Your task to perform on an android device: turn off sleep mode Image 0: 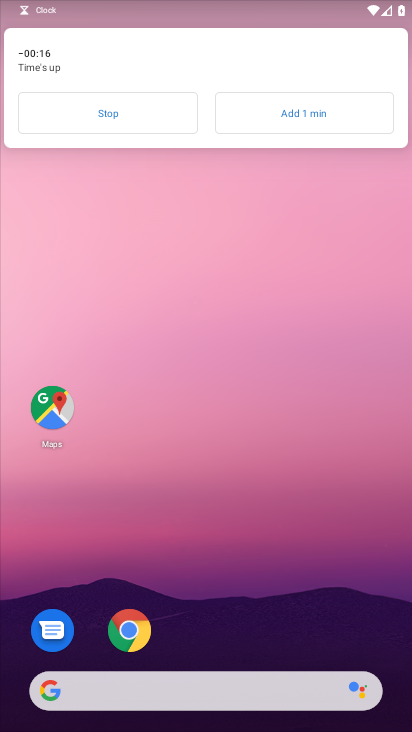
Step 0: click (153, 110)
Your task to perform on an android device: turn off sleep mode Image 1: 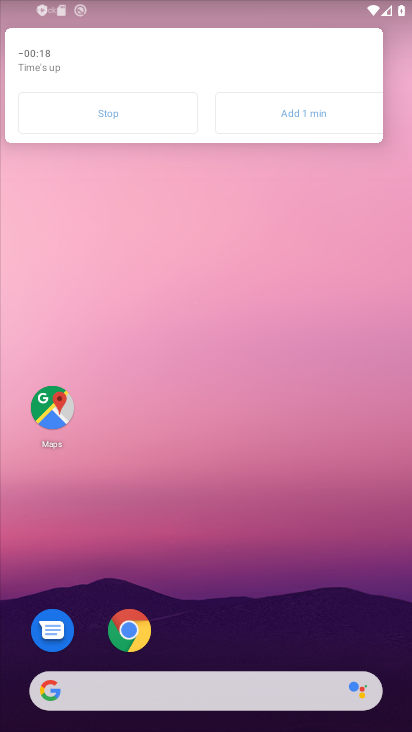
Step 1: drag from (224, 640) to (233, 247)
Your task to perform on an android device: turn off sleep mode Image 2: 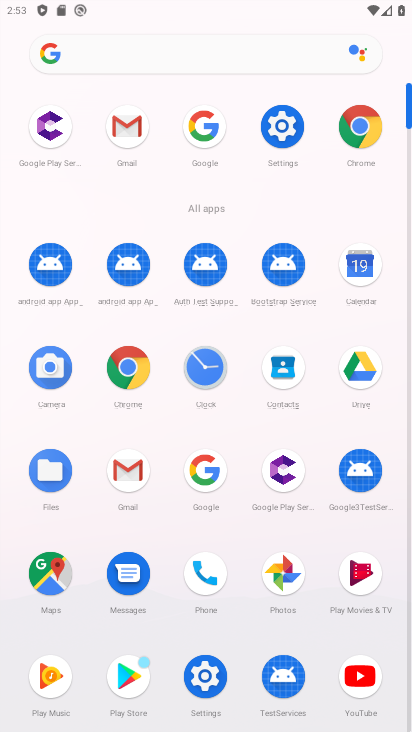
Step 2: click (276, 144)
Your task to perform on an android device: turn off sleep mode Image 3: 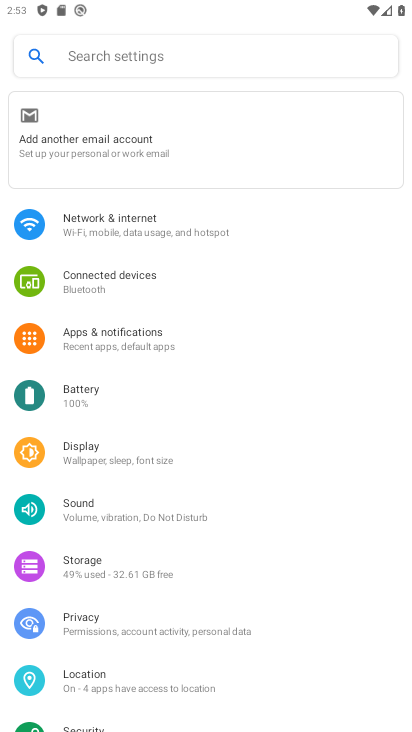
Step 3: click (111, 442)
Your task to perform on an android device: turn off sleep mode Image 4: 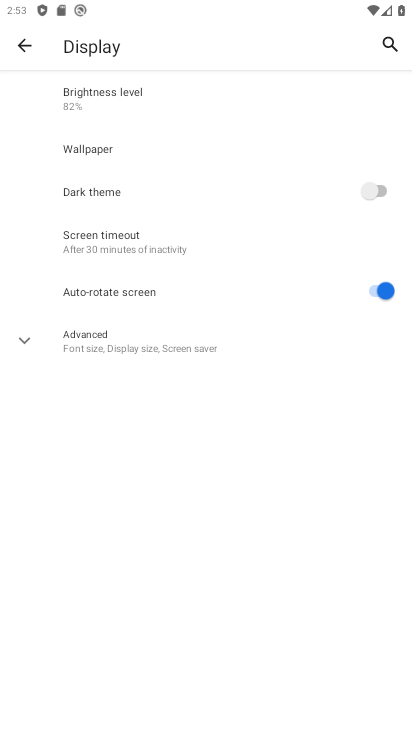
Step 4: click (123, 230)
Your task to perform on an android device: turn off sleep mode Image 5: 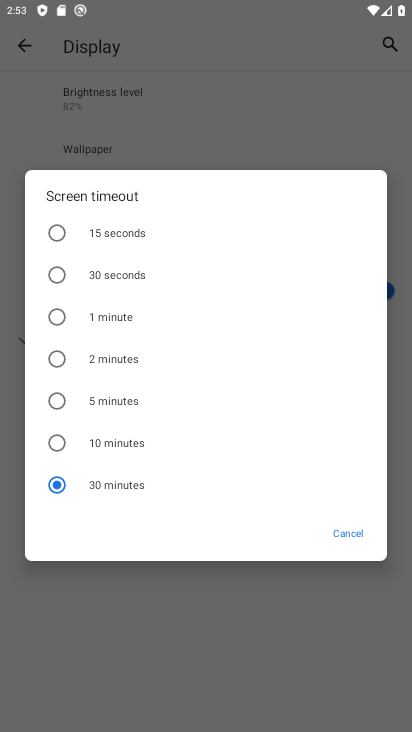
Step 5: click (108, 300)
Your task to perform on an android device: turn off sleep mode Image 6: 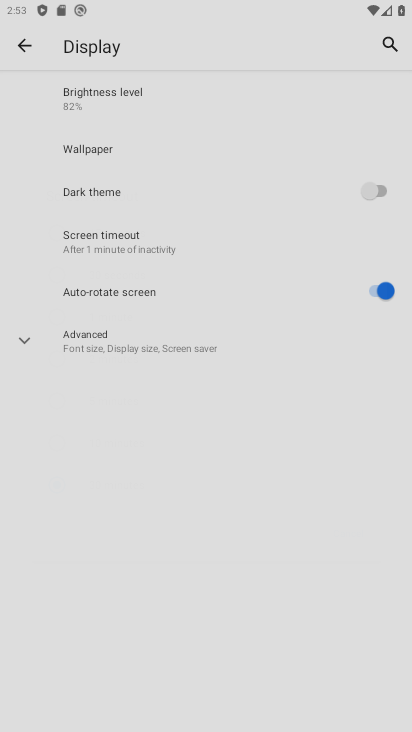
Step 6: click (105, 281)
Your task to perform on an android device: turn off sleep mode Image 7: 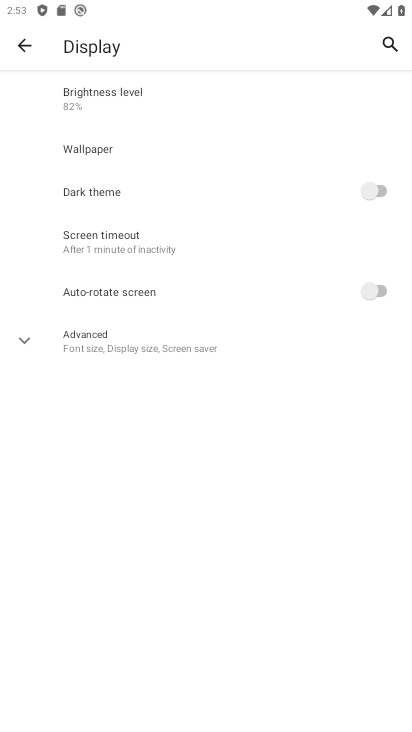
Step 7: task complete